Your task to perform on an android device: Is it going to rain tomorrow? Image 0: 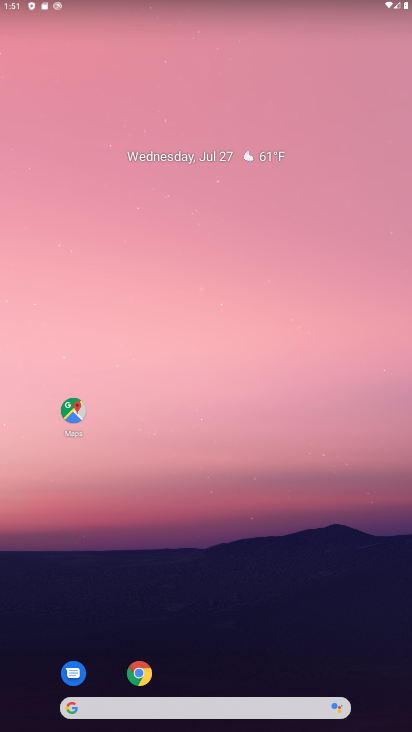
Step 0: click (272, 162)
Your task to perform on an android device: Is it going to rain tomorrow? Image 1: 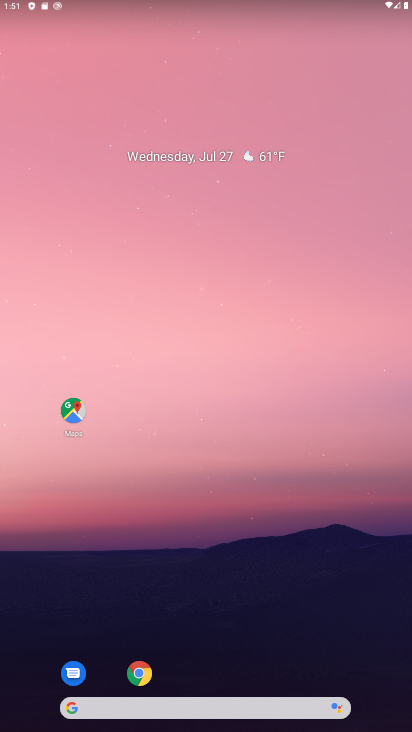
Step 1: click (272, 162)
Your task to perform on an android device: Is it going to rain tomorrow? Image 2: 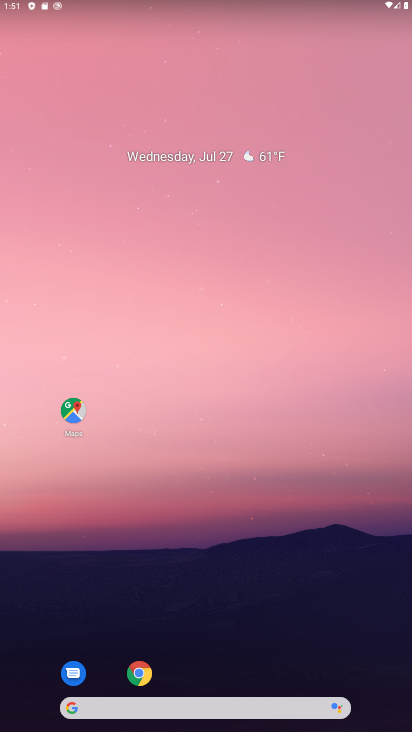
Step 2: click (126, 708)
Your task to perform on an android device: Is it going to rain tomorrow? Image 3: 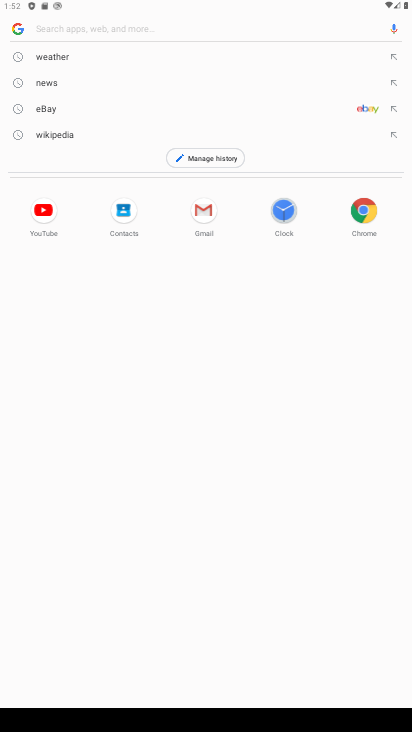
Step 3: click (88, 56)
Your task to perform on an android device: Is it going to rain tomorrow? Image 4: 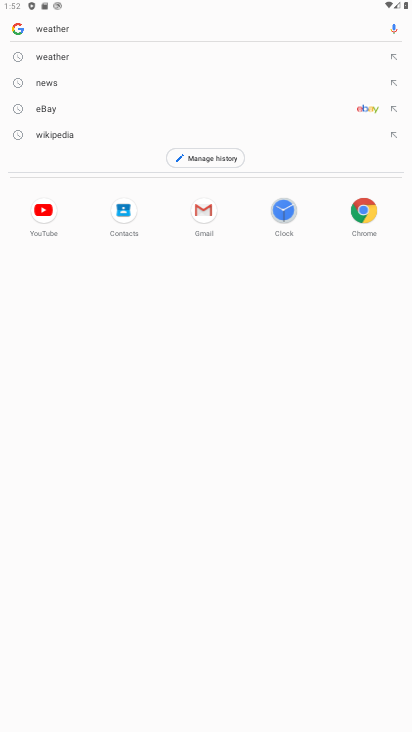
Step 4: click (88, 56)
Your task to perform on an android device: Is it going to rain tomorrow? Image 5: 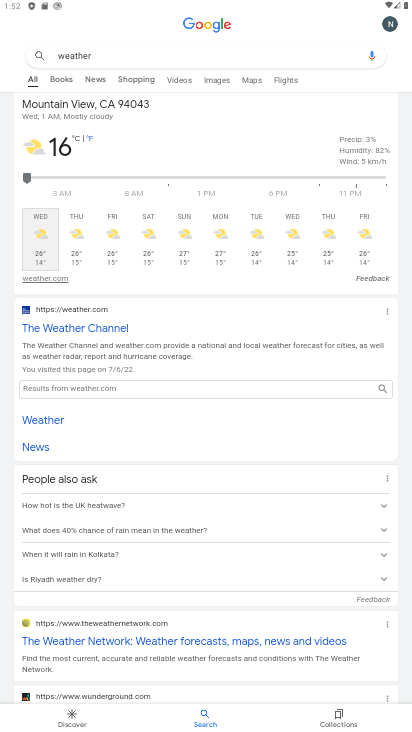
Step 5: click (77, 249)
Your task to perform on an android device: Is it going to rain tomorrow? Image 6: 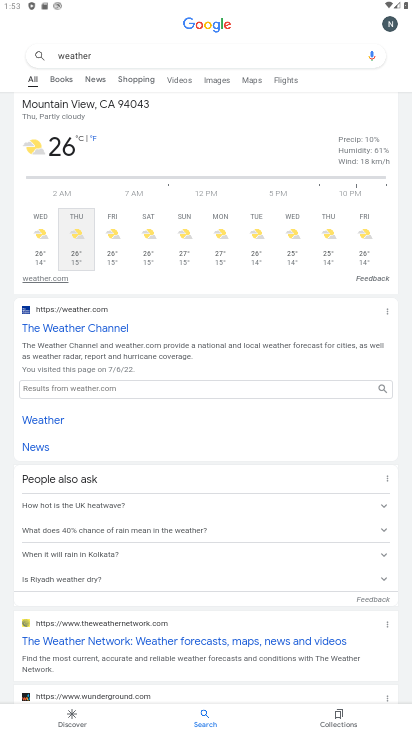
Step 6: task complete